Your task to perform on an android device: Go to Google Image 0: 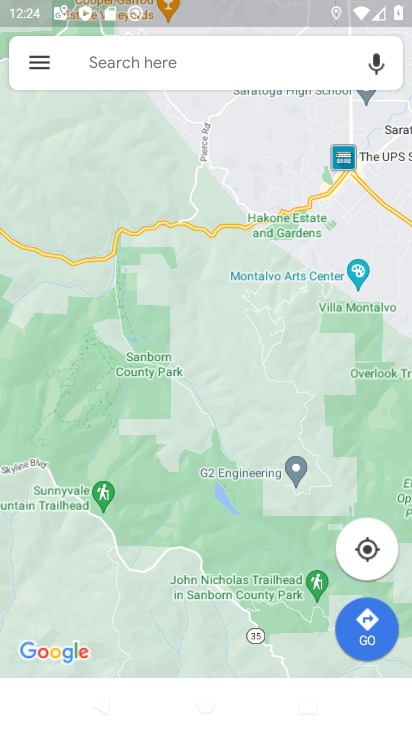
Step 0: press back button
Your task to perform on an android device: Go to Google Image 1: 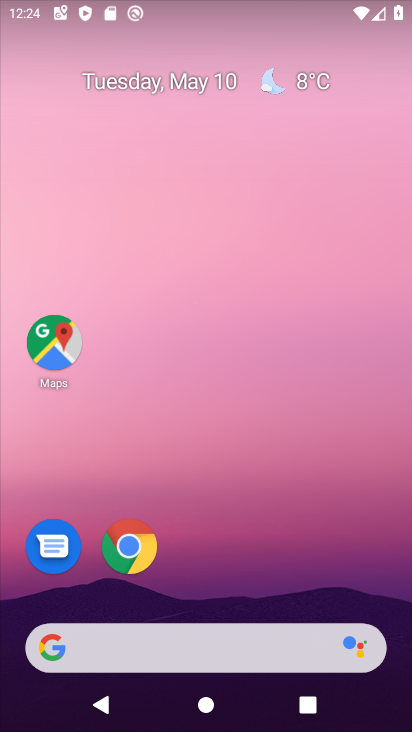
Step 1: drag from (311, 623) to (114, 149)
Your task to perform on an android device: Go to Google Image 2: 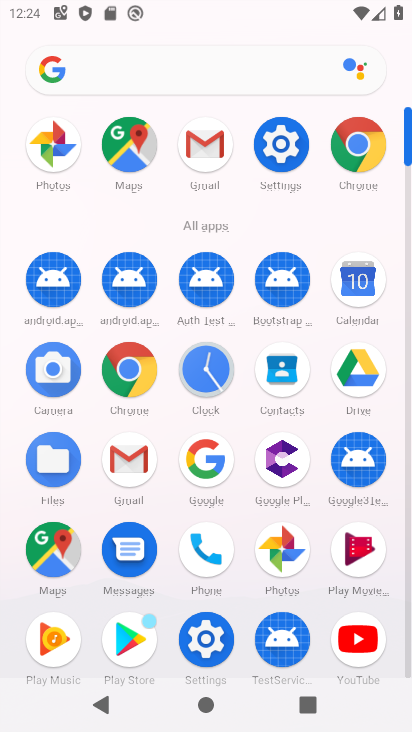
Step 2: click (212, 450)
Your task to perform on an android device: Go to Google Image 3: 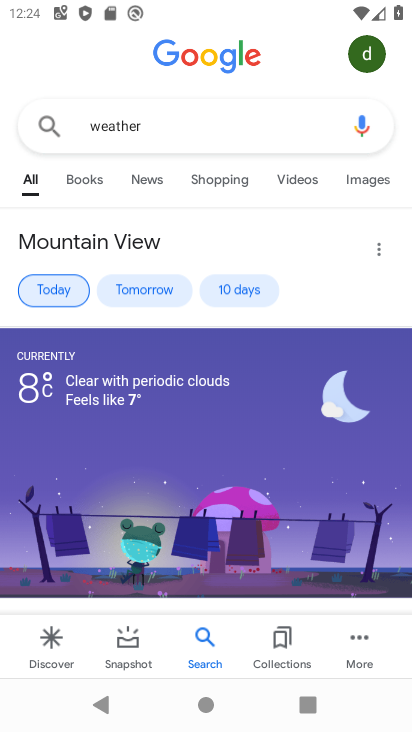
Step 3: task complete